Your task to perform on an android device: change your default location settings in chrome Image 0: 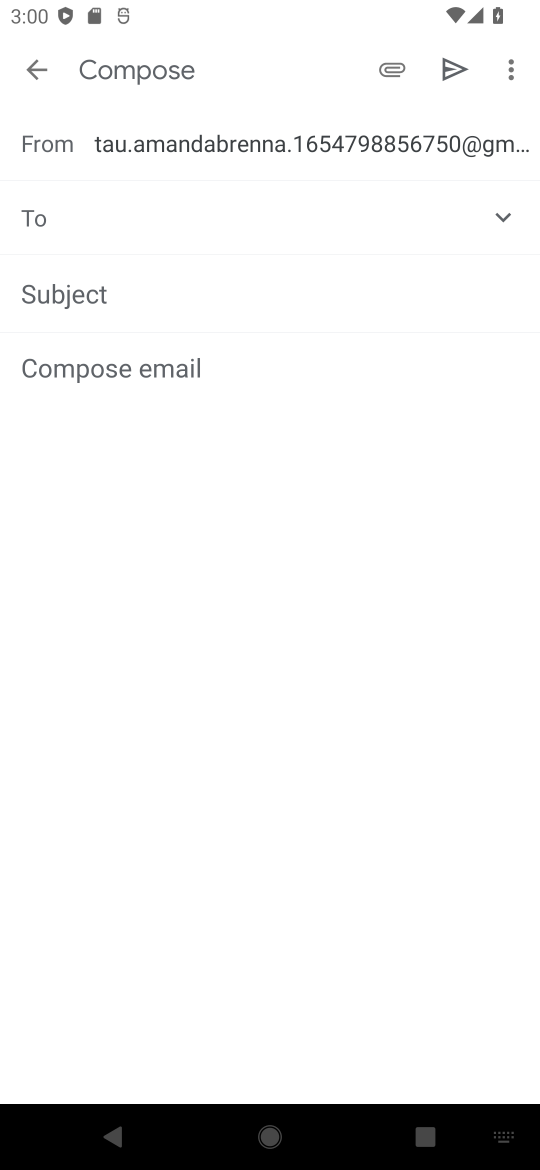
Step 0: click (17, 83)
Your task to perform on an android device: change your default location settings in chrome Image 1: 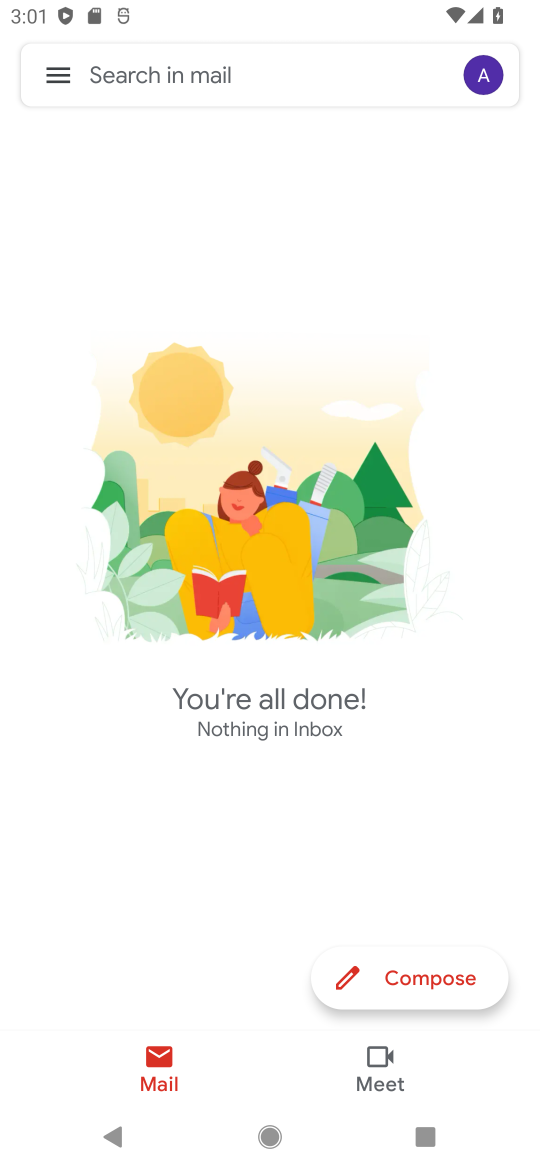
Step 1: click (43, 76)
Your task to perform on an android device: change your default location settings in chrome Image 2: 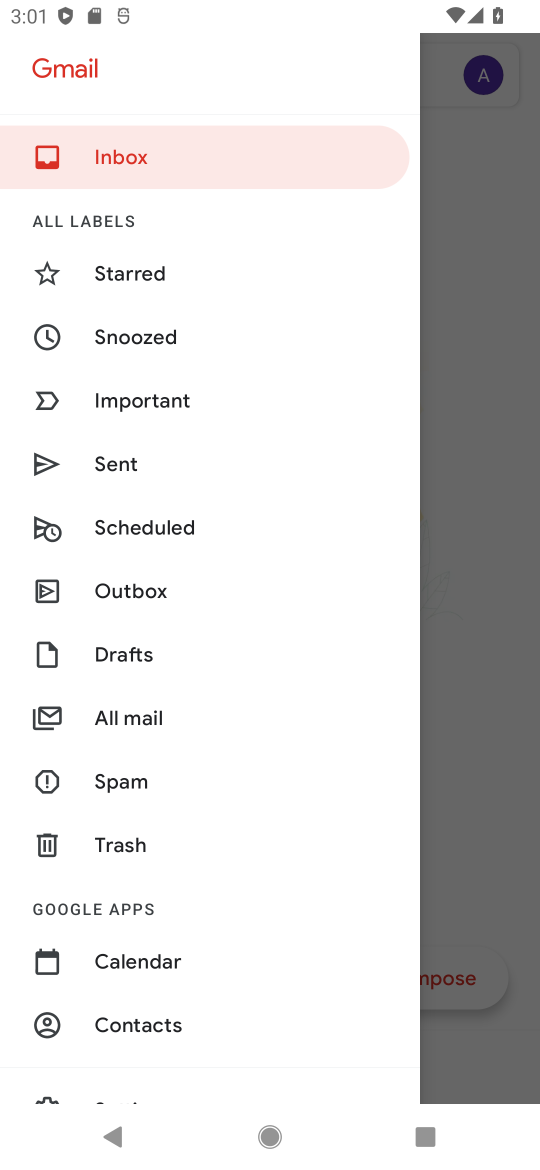
Step 2: click (469, 281)
Your task to perform on an android device: change your default location settings in chrome Image 3: 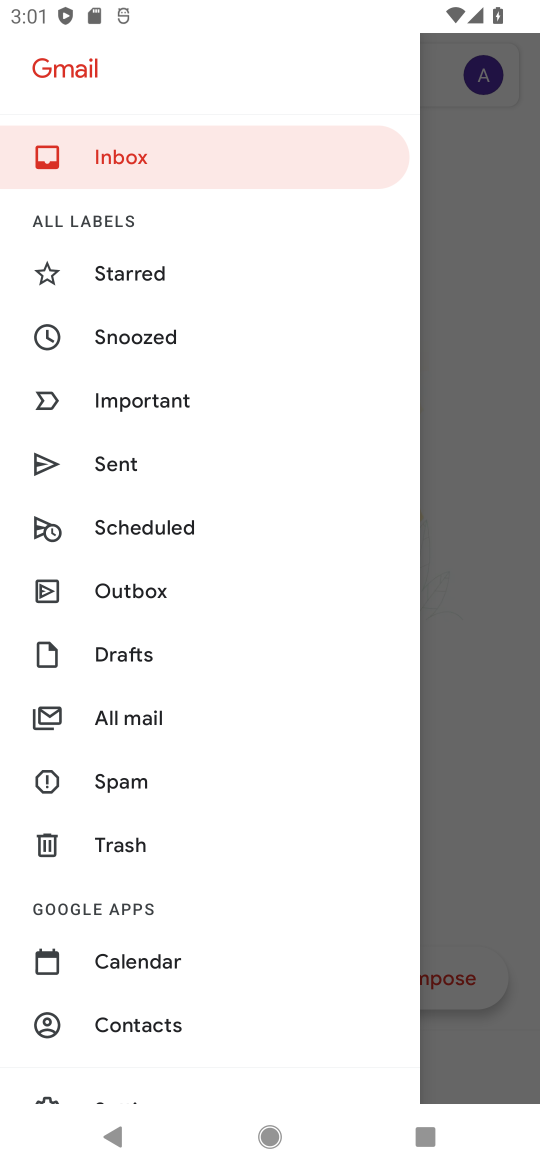
Step 3: click (469, 280)
Your task to perform on an android device: change your default location settings in chrome Image 4: 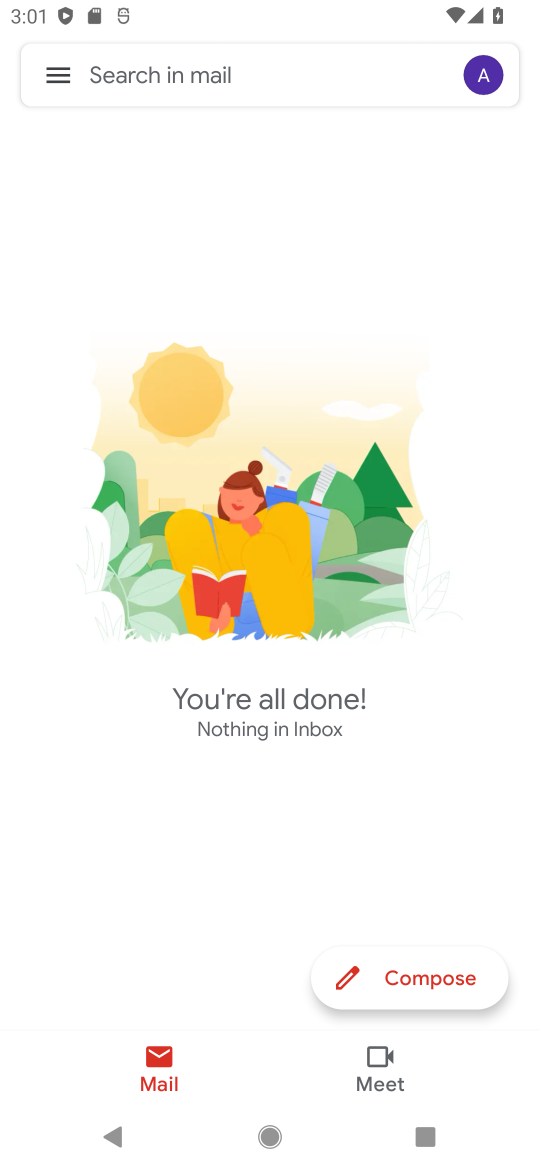
Step 4: press back button
Your task to perform on an android device: change your default location settings in chrome Image 5: 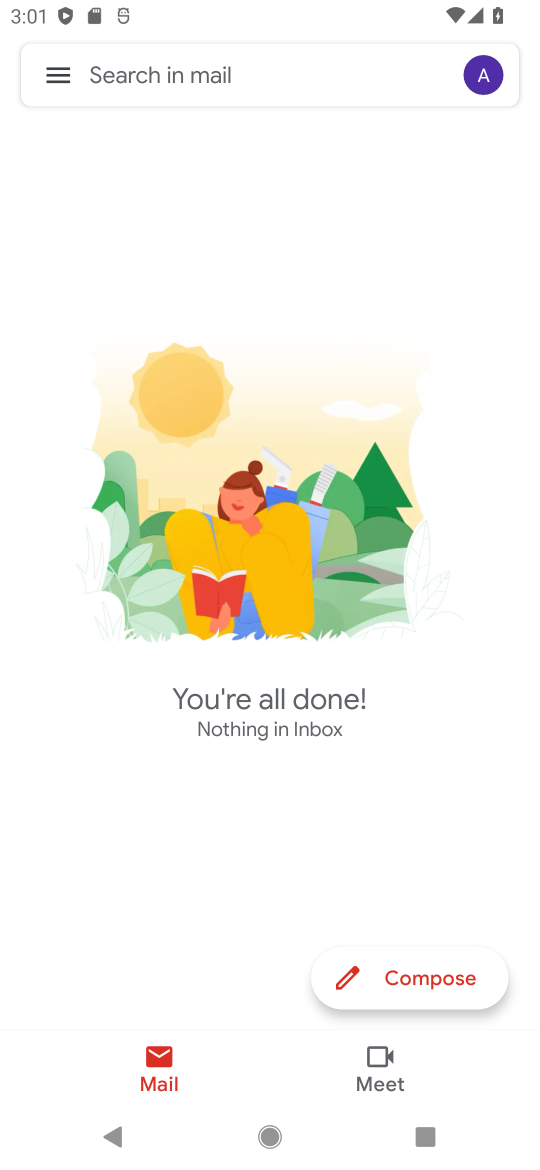
Step 5: press back button
Your task to perform on an android device: change your default location settings in chrome Image 6: 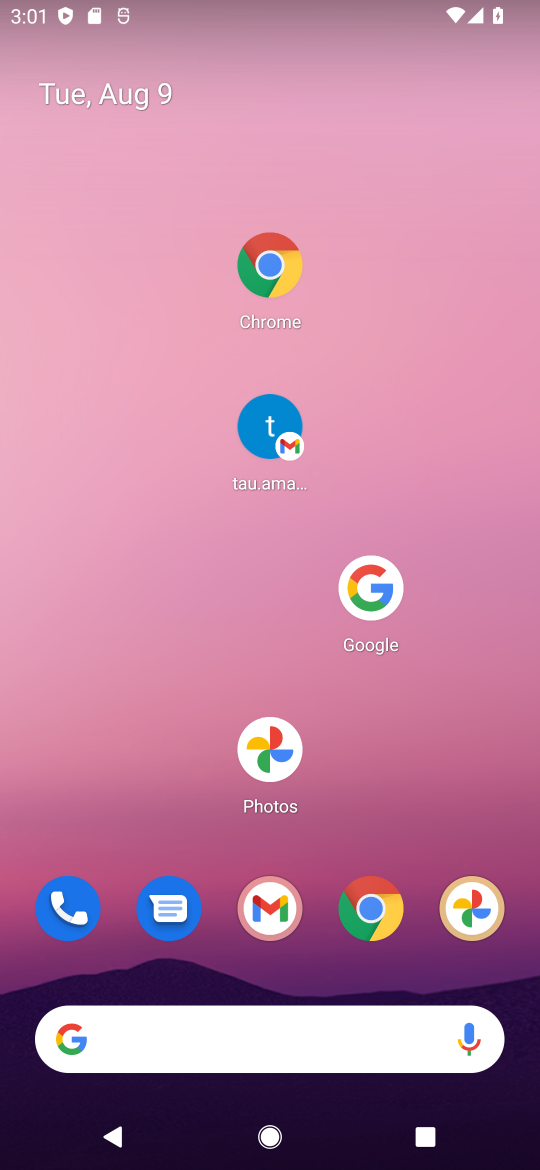
Step 6: drag from (328, 1069) to (212, 456)
Your task to perform on an android device: change your default location settings in chrome Image 7: 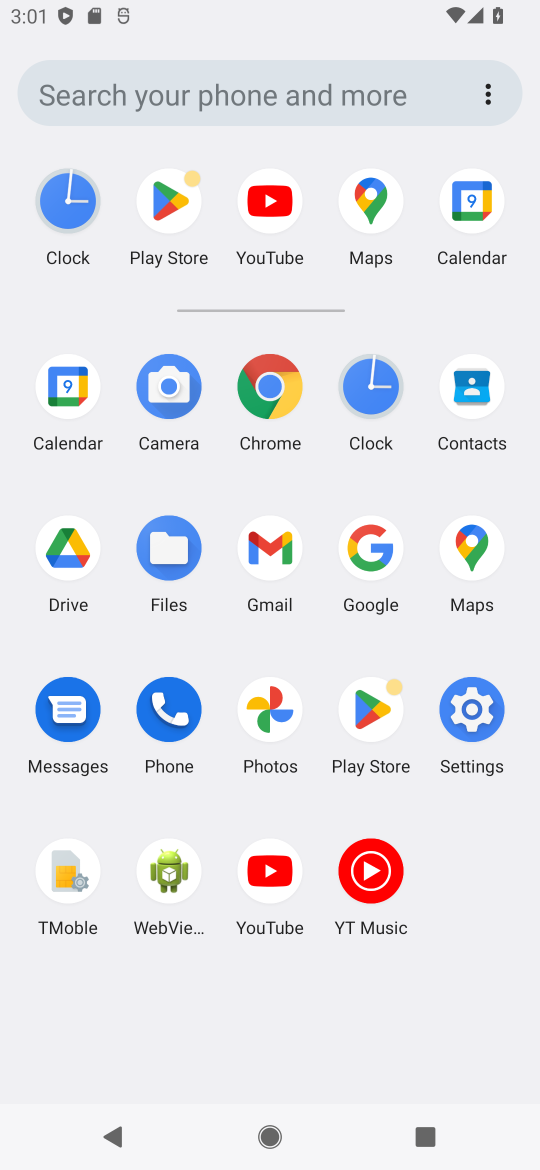
Step 7: click (265, 392)
Your task to perform on an android device: change your default location settings in chrome Image 8: 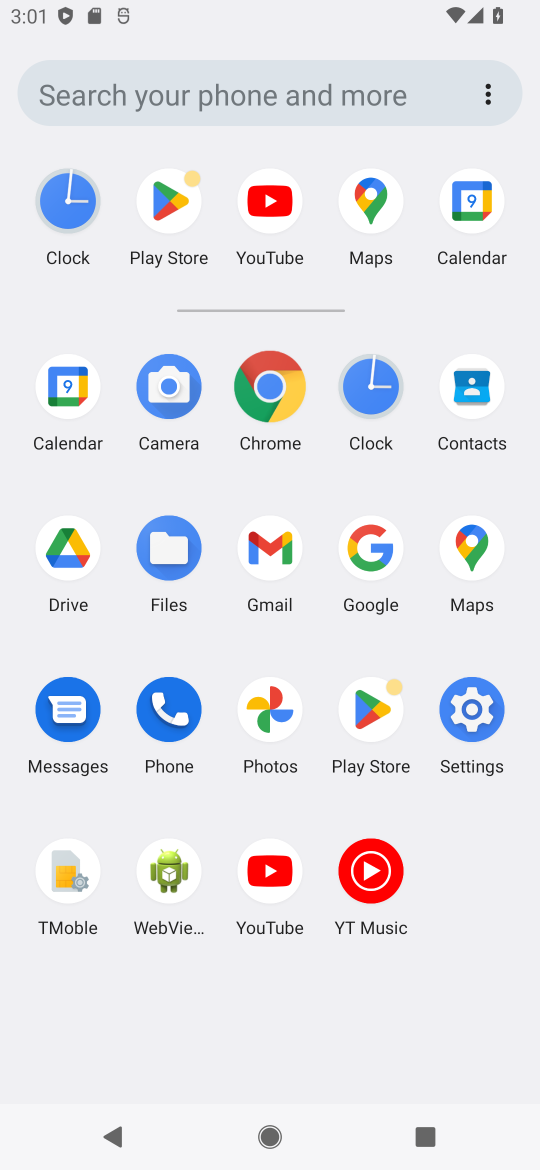
Step 8: click (267, 386)
Your task to perform on an android device: change your default location settings in chrome Image 9: 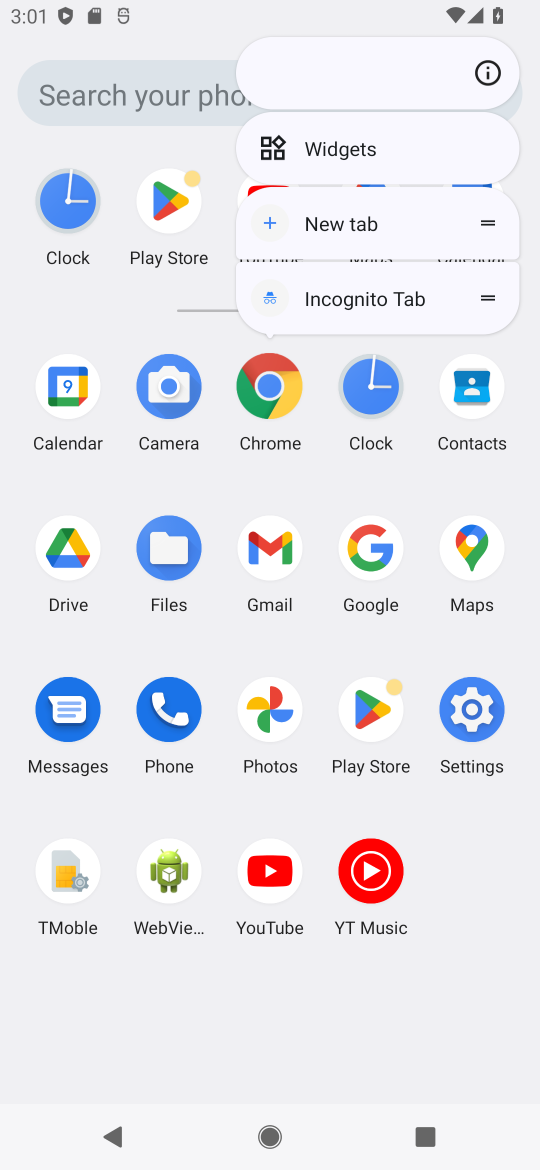
Step 9: click (267, 386)
Your task to perform on an android device: change your default location settings in chrome Image 10: 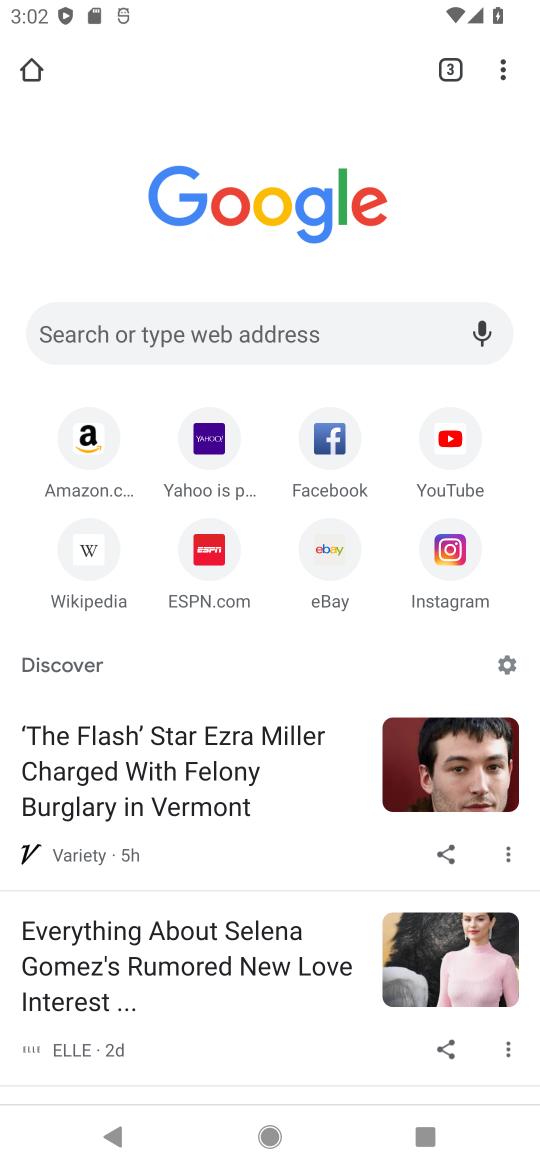
Step 10: click (495, 70)
Your task to perform on an android device: change your default location settings in chrome Image 11: 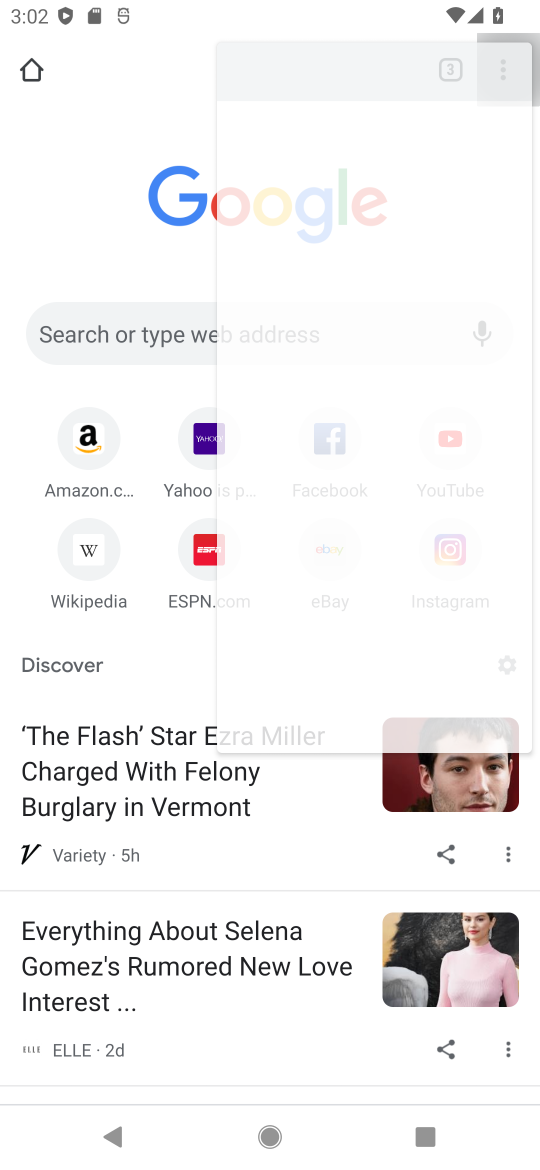
Step 11: click (487, 80)
Your task to perform on an android device: change your default location settings in chrome Image 12: 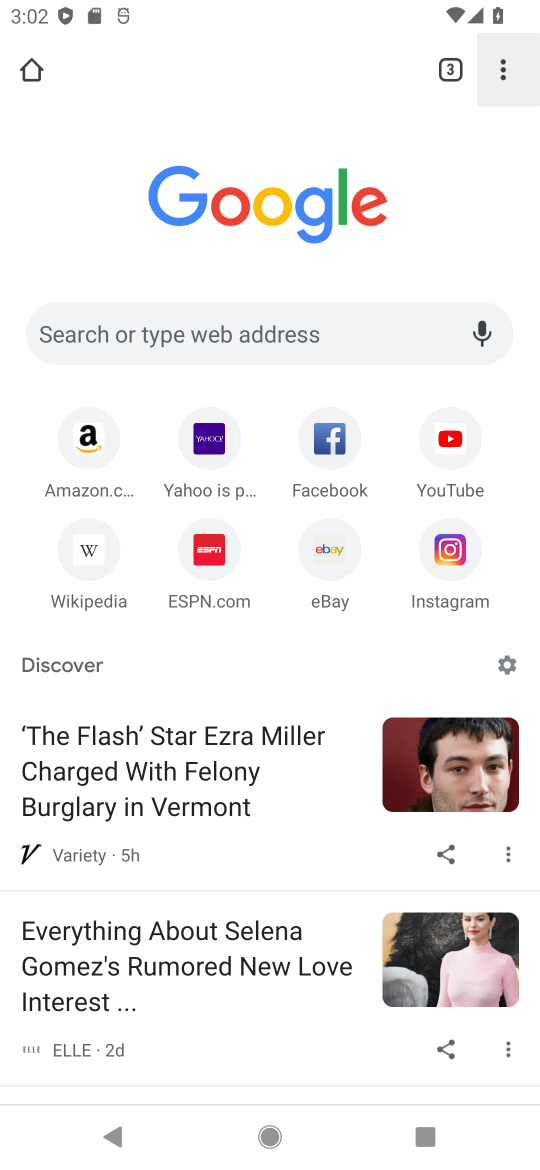
Step 12: click (487, 80)
Your task to perform on an android device: change your default location settings in chrome Image 13: 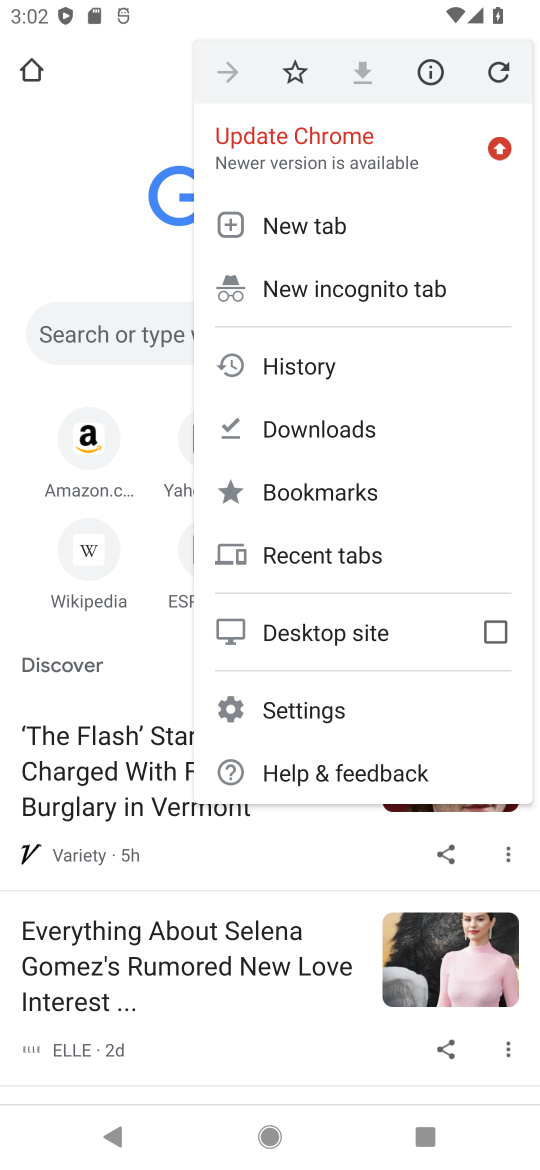
Step 13: click (288, 690)
Your task to perform on an android device: change your default location settings in chrome Image 14: 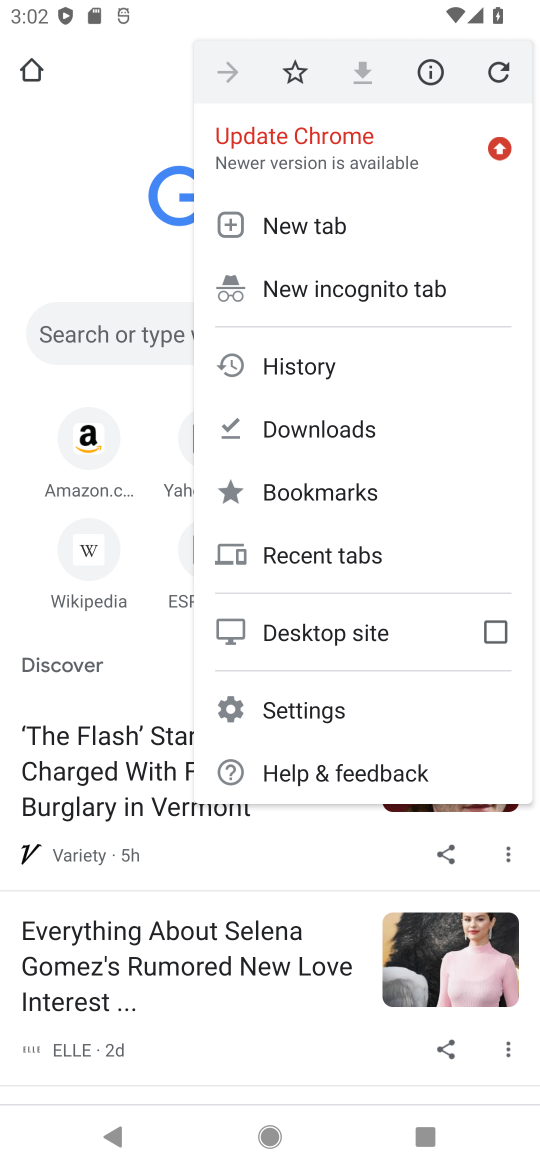
Step 14: click (303, 722)
Your task to perform on an android device: change your default location settings in chrome Image 15: 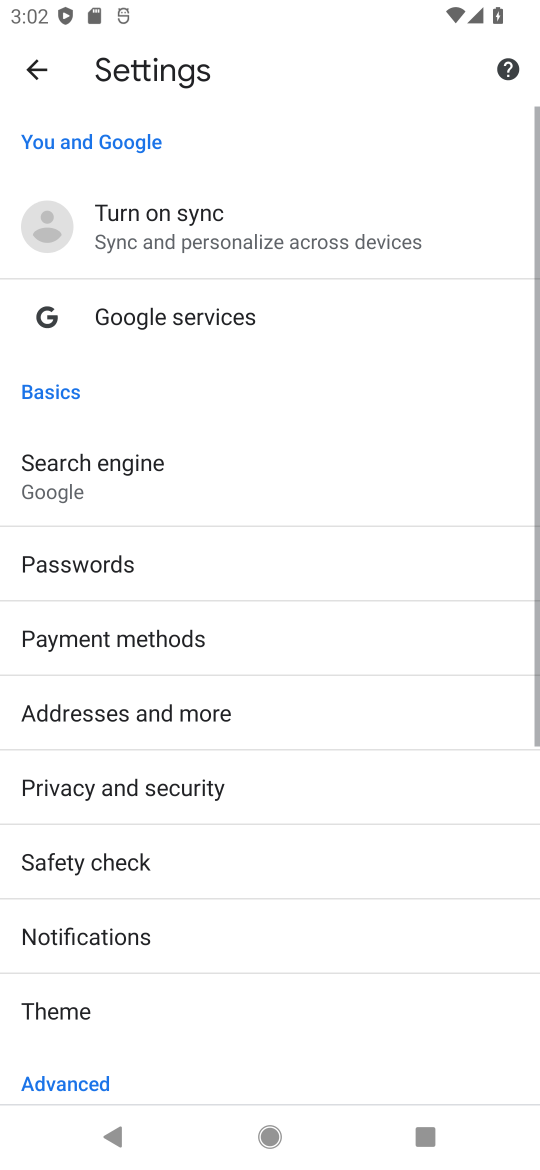
Step 15: drag from (72, 976) to (74, 348)
Your task to perform on an android device: change your default location settings in chrome Image 16: 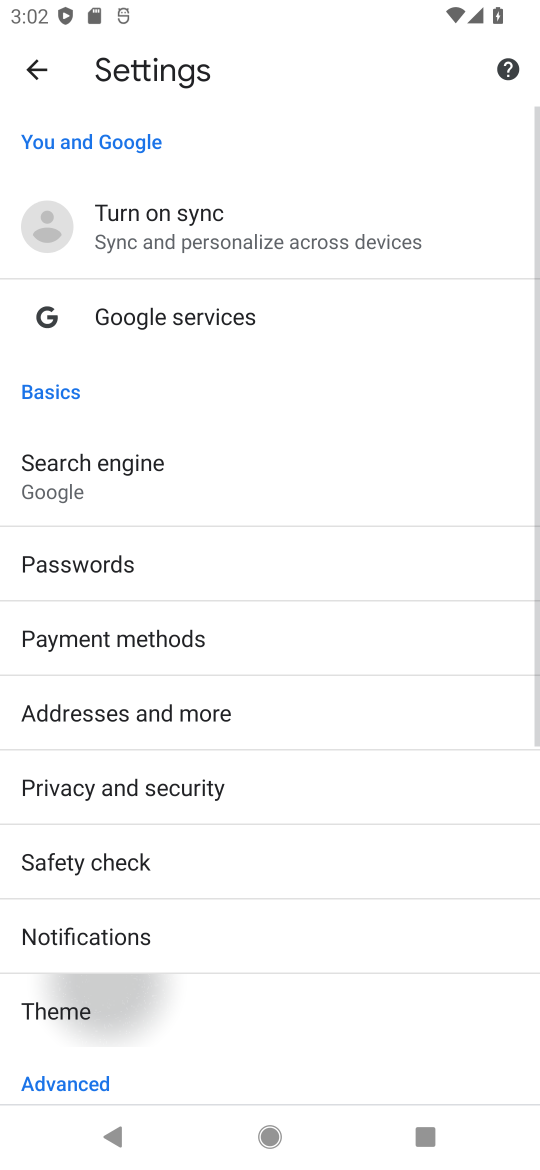
Step 16: drag from (232, 766) to (278, 442)
Your task to perform on an android device: change your default location settings in chrome Image 17: 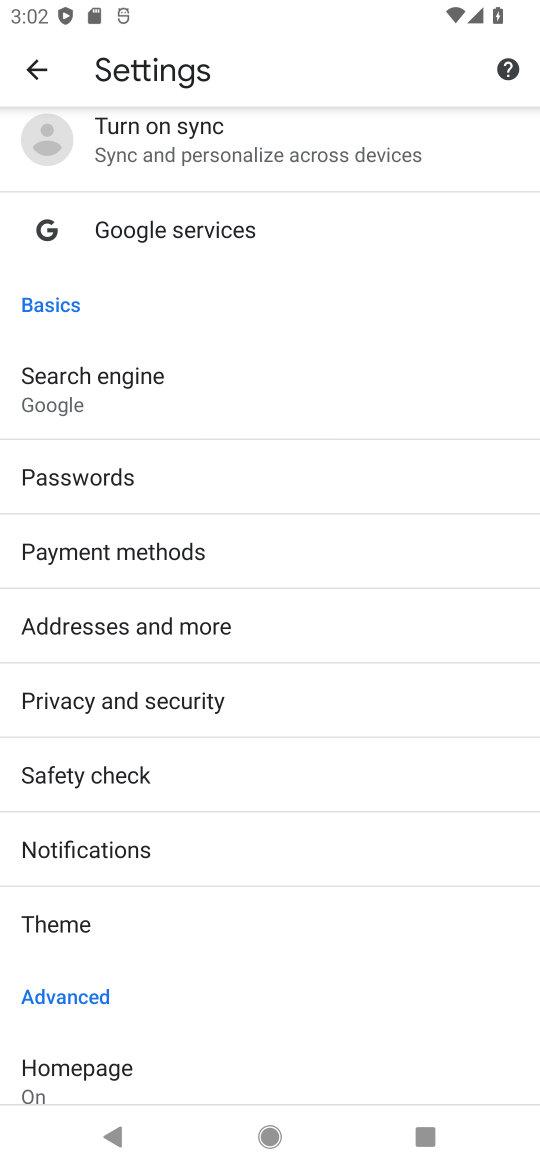
Step 17: click (258, 469)
Your task to perform on an android device: change your default location settings in chrome Image 18: 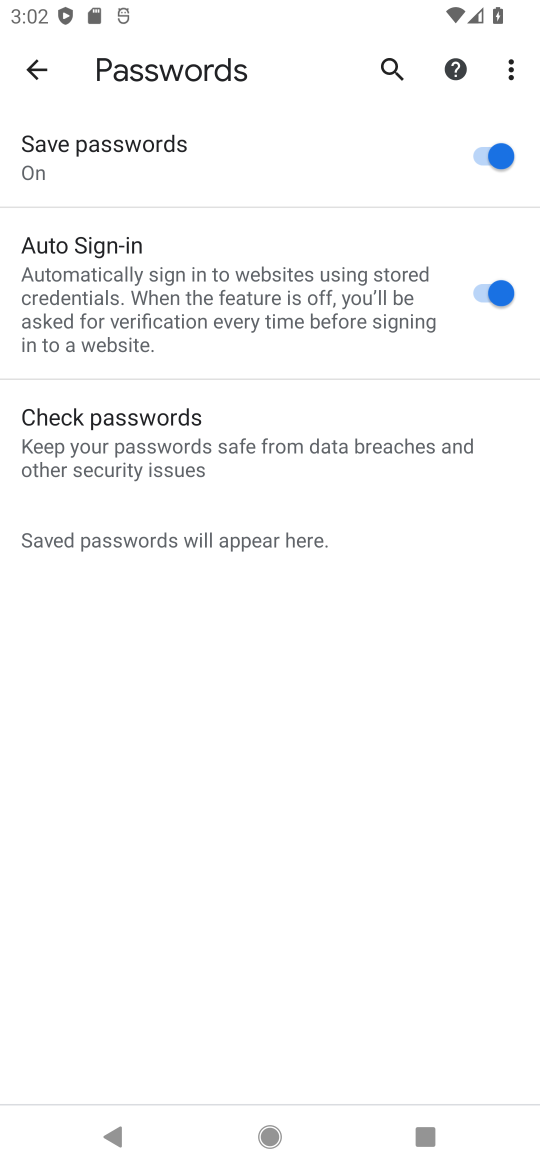
Step 18: click (35, 73)
Your task to perform on an android device: change your default location settings in chrome Image 19: 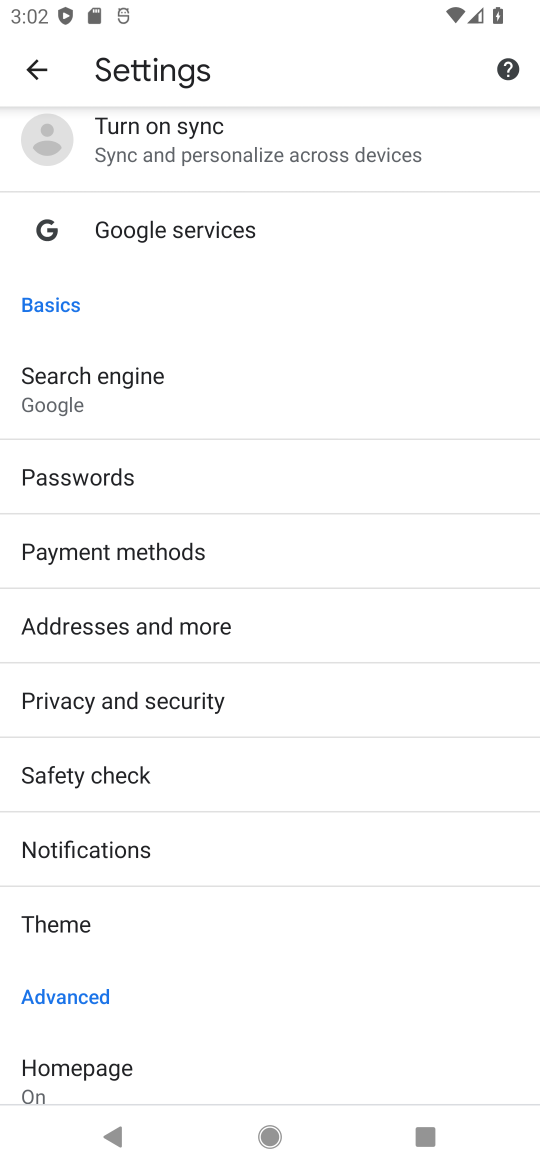
Step 19: drag from (215, 753) to (184, 423)
Your task to perform on an android device: change your default location settings in chrome Image 20: 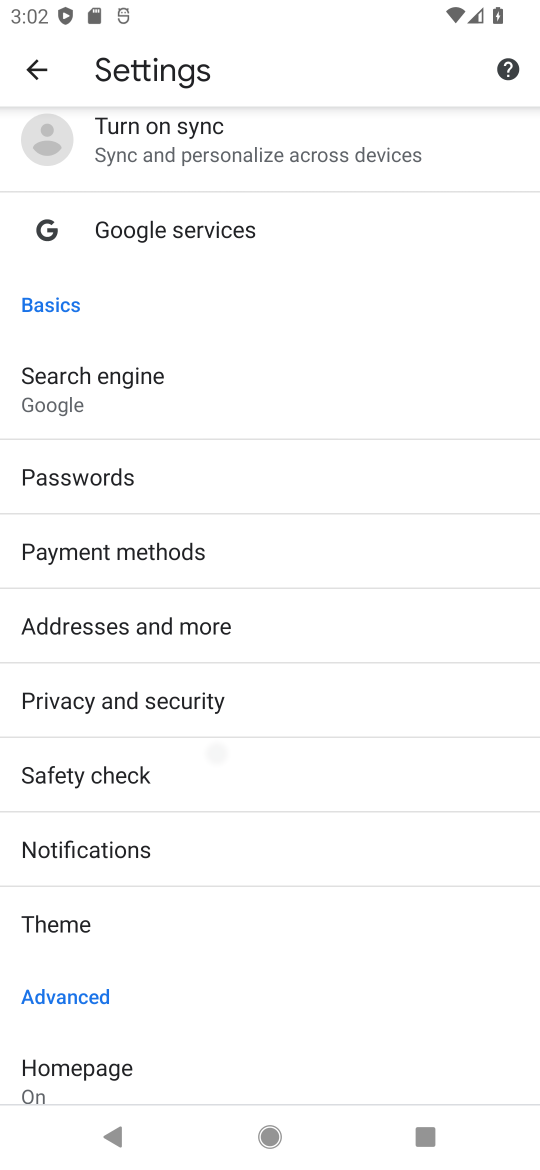
Step 20: drag from (128, 818) to (140, 544)
Your task to perform on an android device: change your default location settings in chrome Image 21: 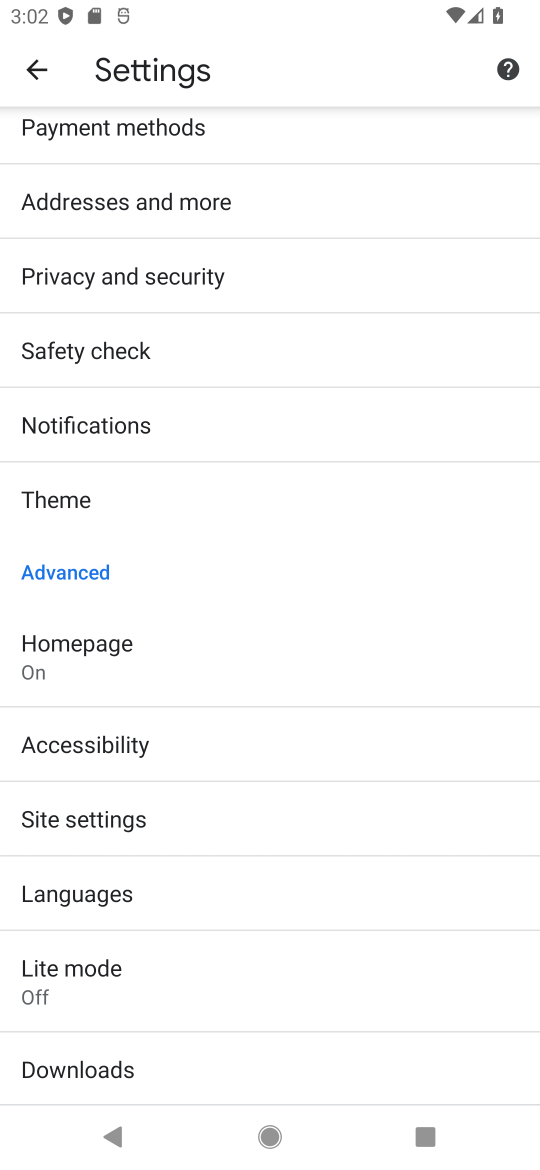
Step 21: click (99, 888)
Your task to perform on an android device: change your default location settings in chrome Image 22: 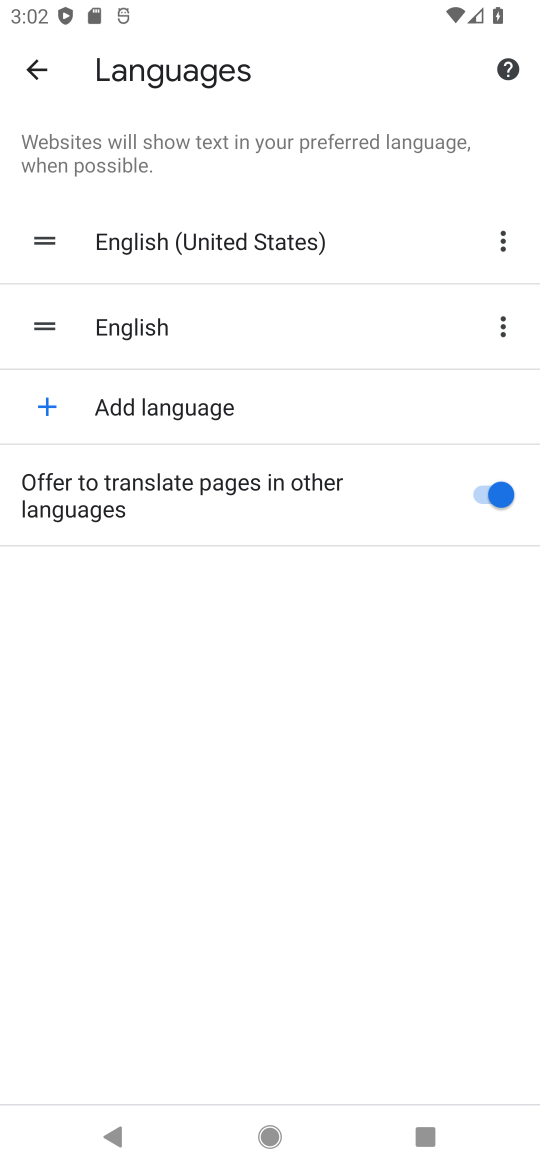
Step 22: click (27, 61)
Your task to perform on an android device: change your default location settings in chrome Image 23: 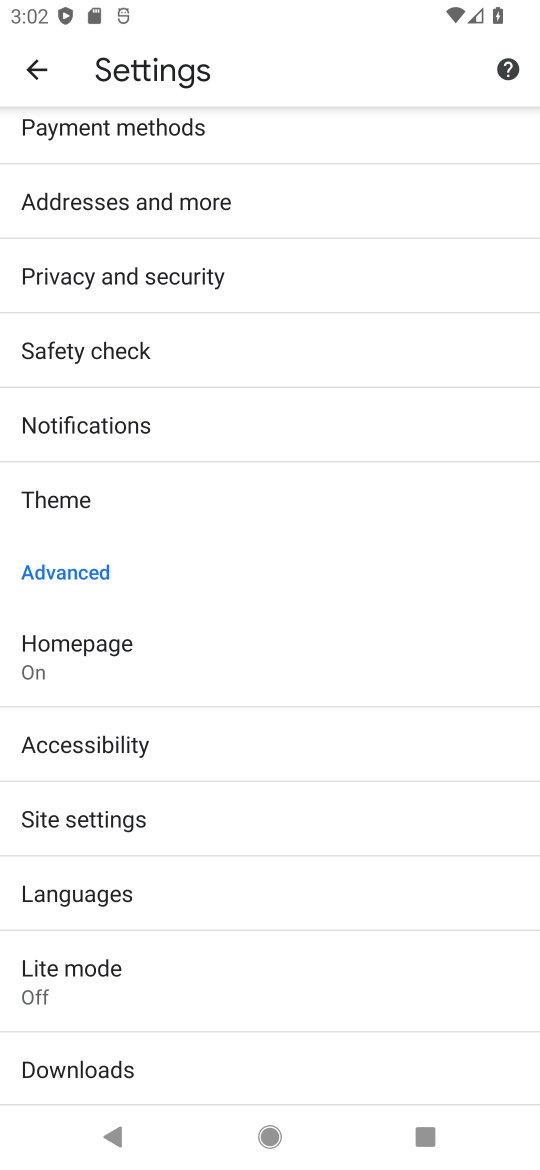
Step 23: click (100, 812)
Your task to perform on an android device: change your default location settings in chrome Image 24: 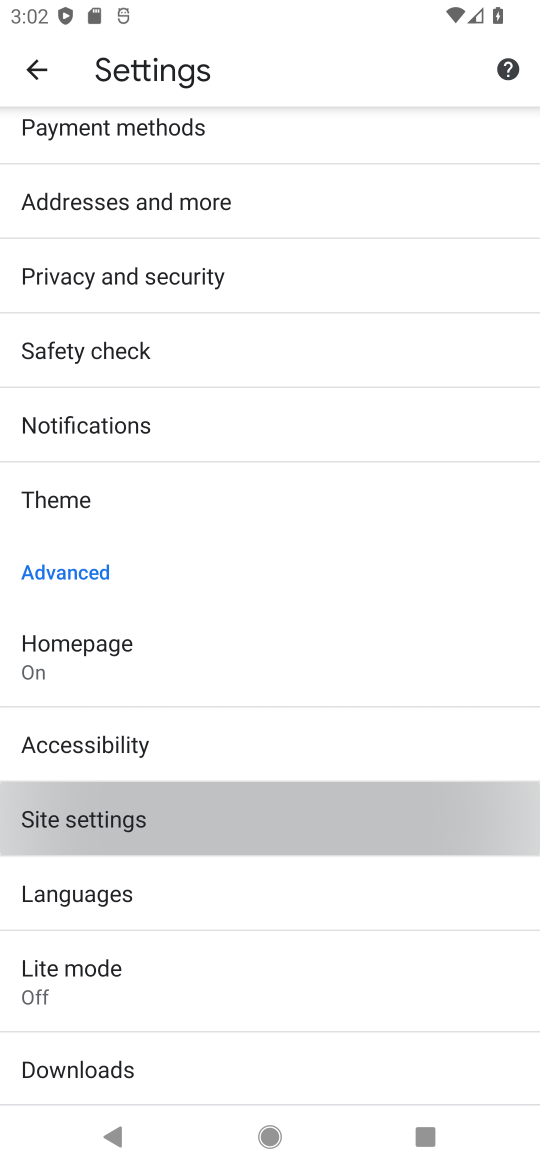
Step 24: click (98, 810)
Your task to perform on an android device: change your default location settings in chrome Image 25: 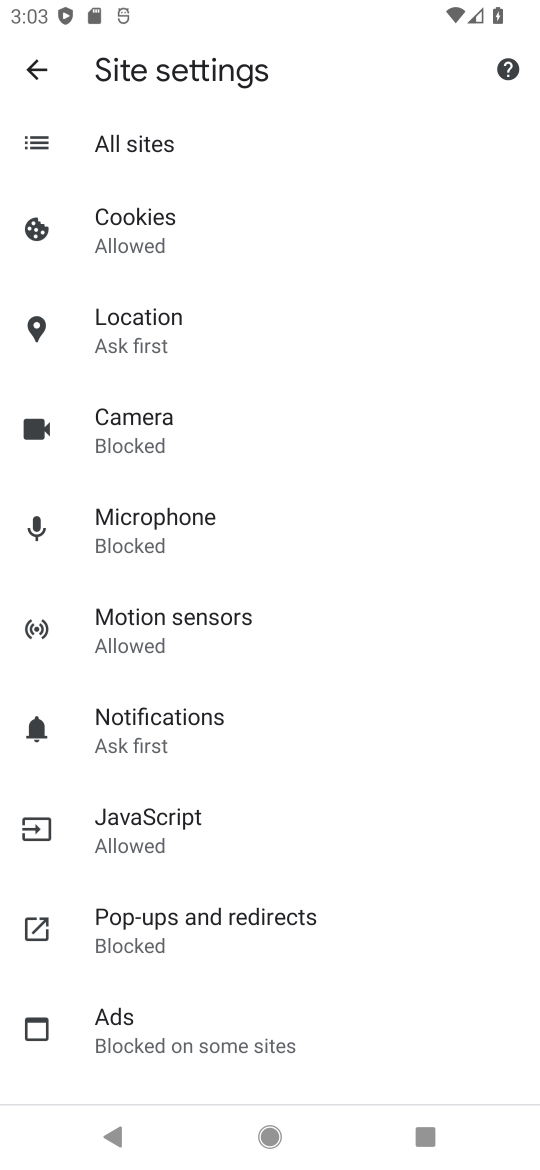
Step 25: click (127, 322)
Your task to perform on an android device: change your default location settings in chrome Image 26: 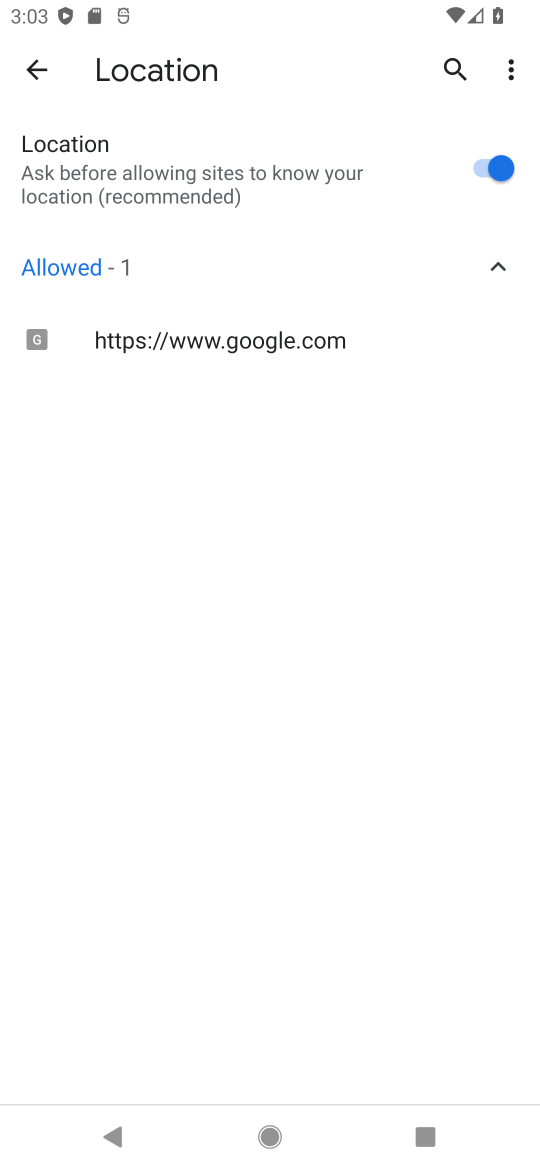
Step 26: click (507, 158)
Your task to perform on an android device: change your default location settings in chrome Image 27: 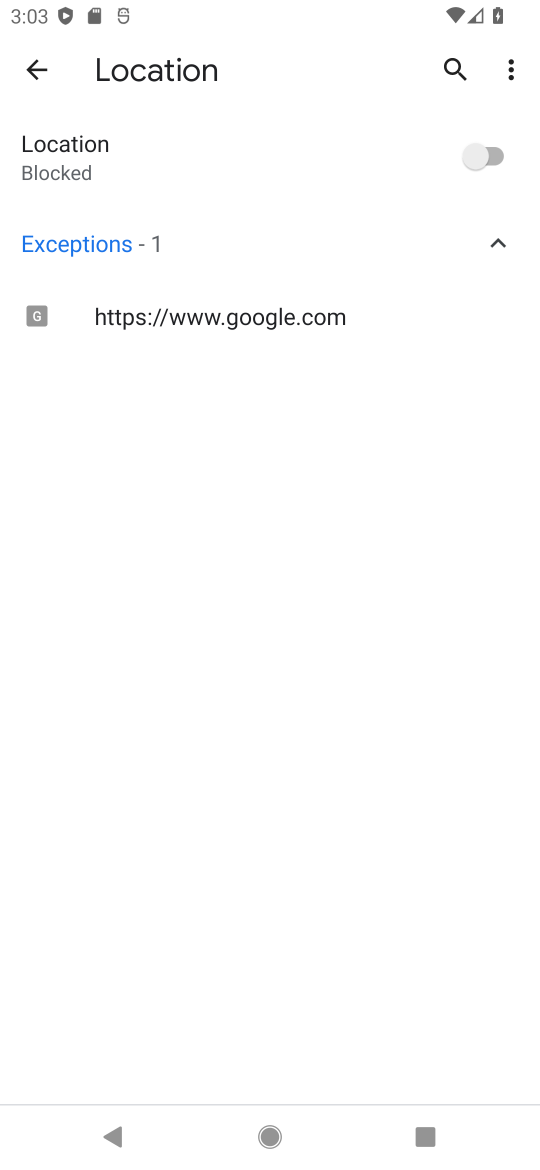
Step 27: task complete